Your task to perform on an android device: Open calendar and show me the third week of next month Image 0: 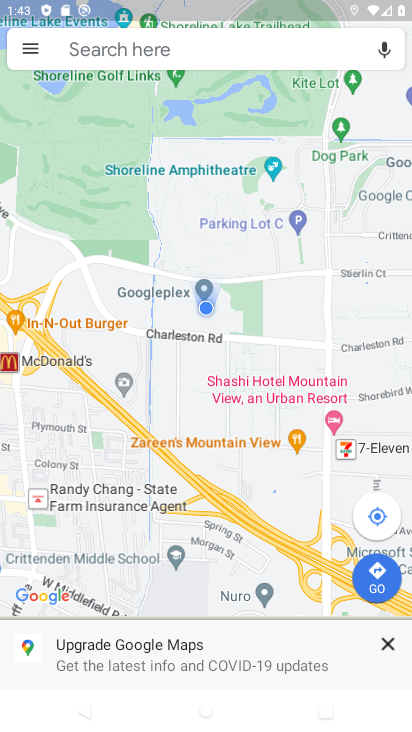
Step 0: press home button
Your task to perform on an android device: Open calendar and show me the third week of next month Image 1: 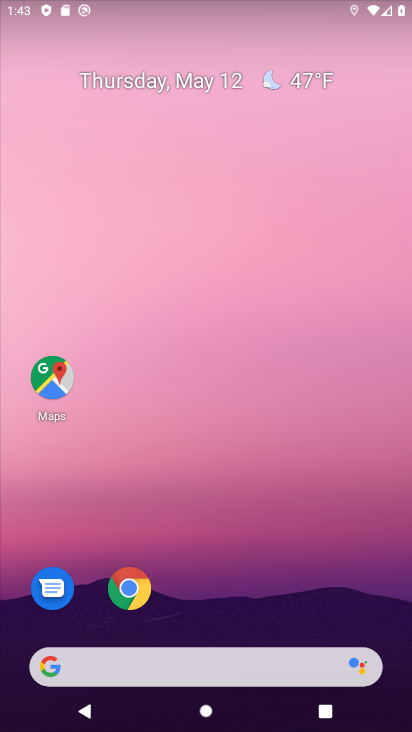
Step 1: drag from (385, 665) to (258, 73)
Your task to perform on an android device: Open calendar and show me the third week of next month Image 2: 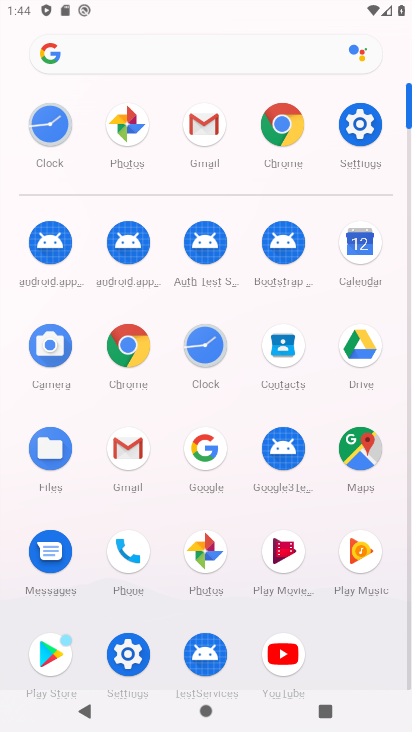
Step 2: click (359, 244)
Your task to perform on an android device: Open calendar and show me the third week of next month Image 3: 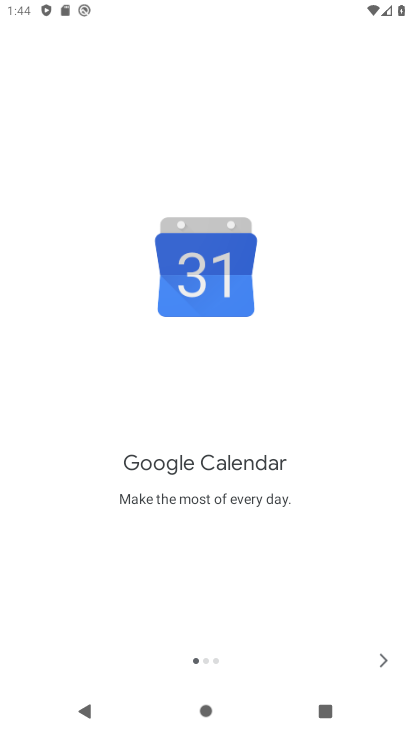
Step 3: click (385, 650)
Your task to perform on an android device: Open calendar and show me the third week of next month Image 4: 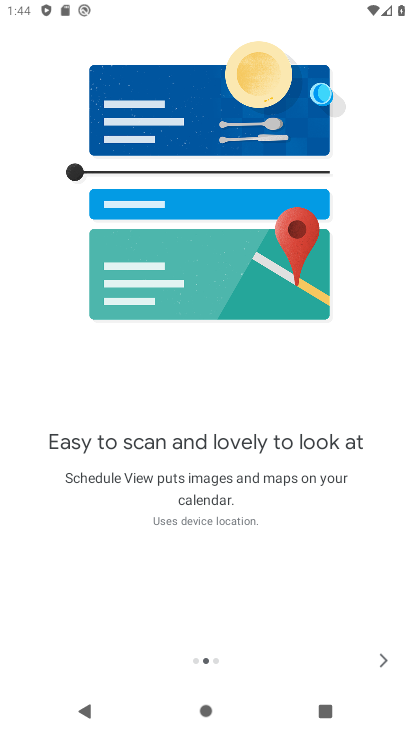
Step 4: click (385, 650)
Your task to perform on an android device: Open calendar and show me the third week of next month Image 5: 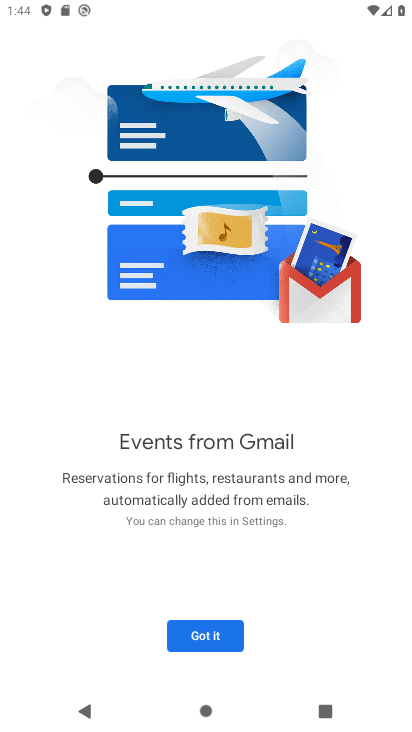
Step 5: click (385, 650)
Your task to perform on an android device: Open calendar and show me the third week of next month Image 6: 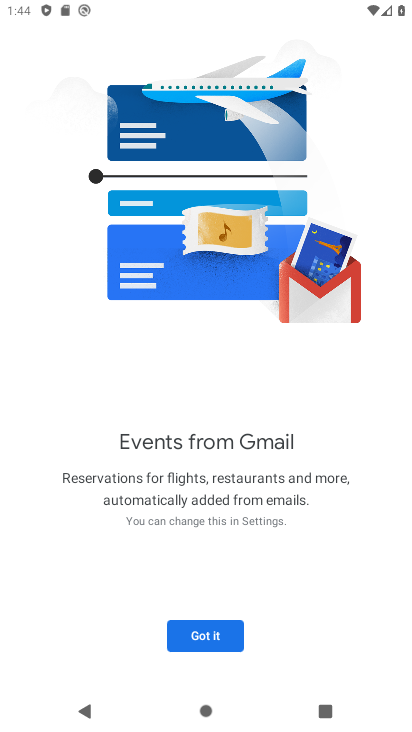
Step 6: click (198, 643)
Your task to perform on an android device: Open calendar and show me the third week of next month Image 7: 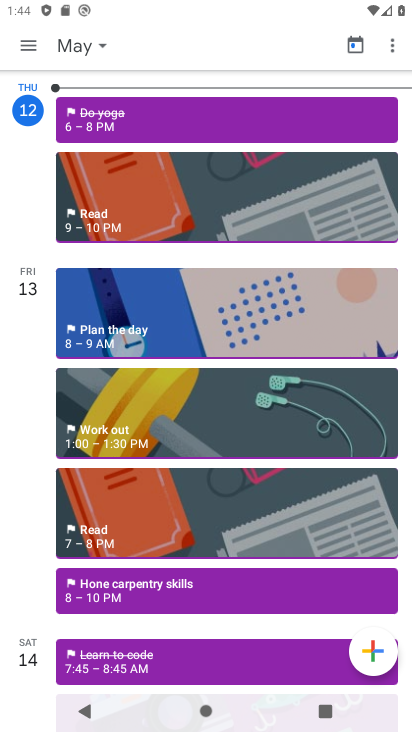
Step 7: click (76, 38)
Your task to perform on an android device: Open calendar and show me the third week of next month Image 8: 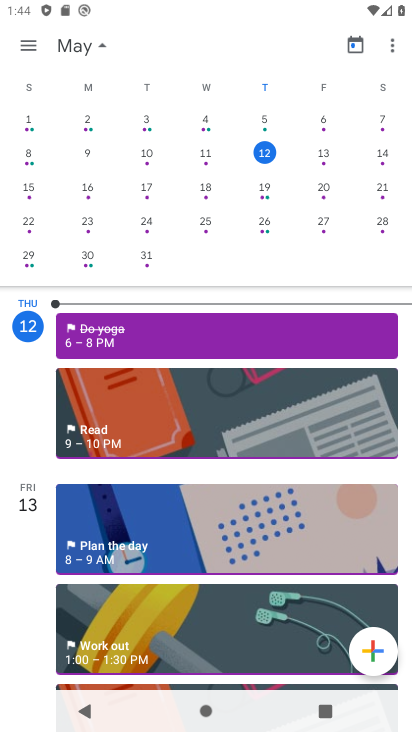
Step 8: drag from (371, 238) to (135, 203)
Your task to perform on an android device: Open calendar and show me the third week of next month Image 9: 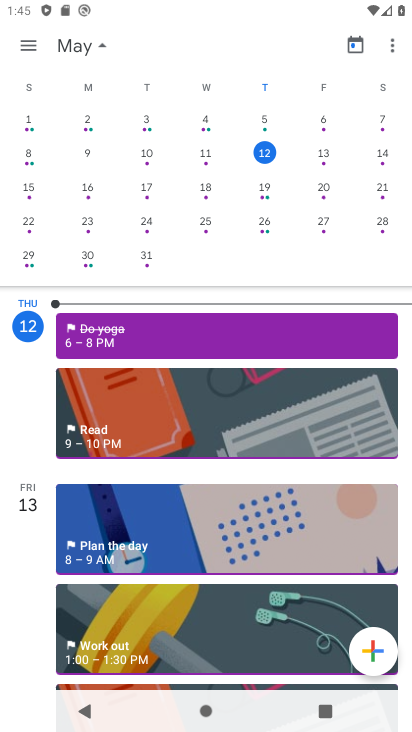
Step 9: click (29, 191)
Your task to perform on an android device: Open calendar and show me the third week of next month Image 10: 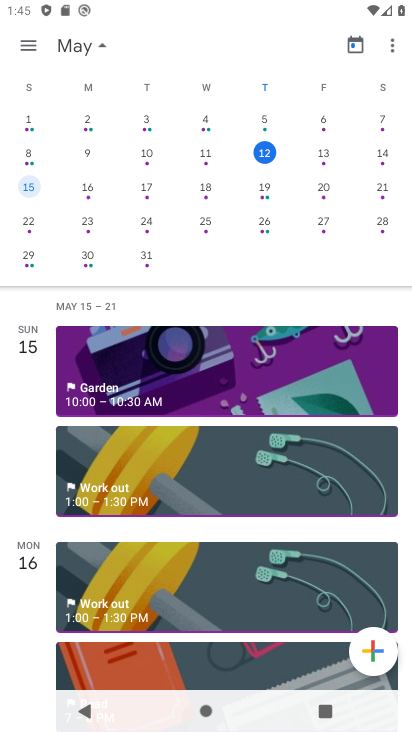
Step 10: task complete